Your task to perform on an android device: What's the weather going to be tomorrow? Image 0: 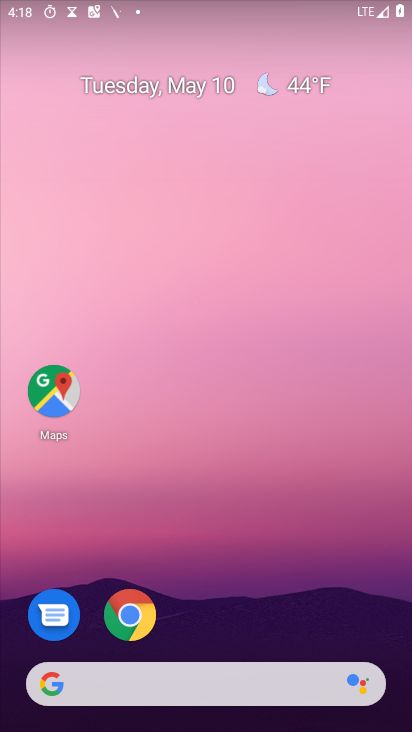
Step 0: drag from (231, 643) to (255, 83)
Your task to perform on an android device: What's the weather going to be tomorrow? Image 1: 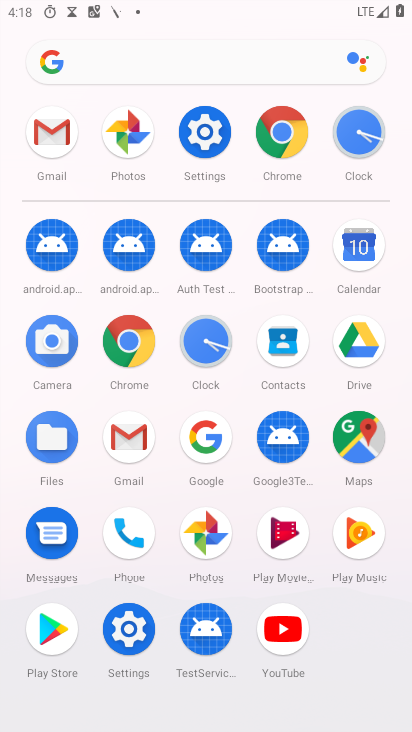
Step 1: click (286, 153)
Your task to perform on an android device: What's the weather going to be tomorrow? Image 2: 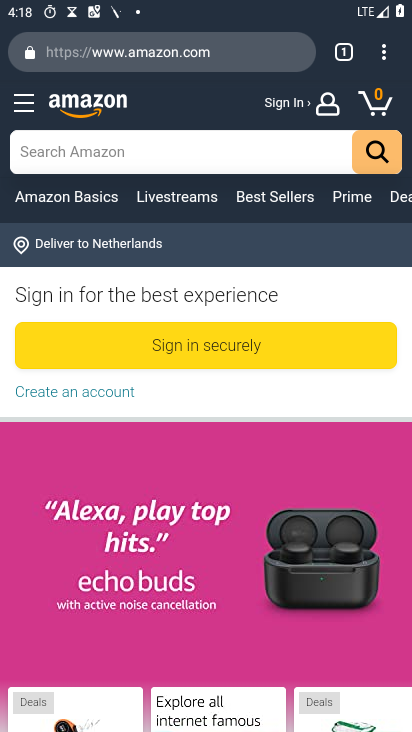
Step 2: click (211, 58)
Your task to perform on an android device: What's the weather going to be tomorrow? Image 3: 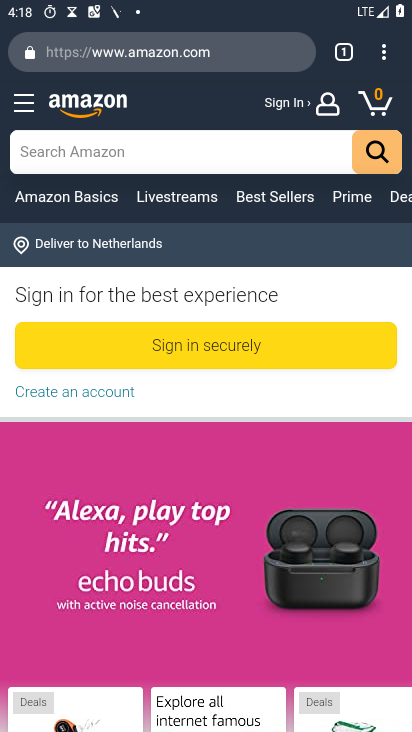
Step 3: click (201, 58)
Your task to perform on an android device: What's the weather going to be tomorrow? Image 4: 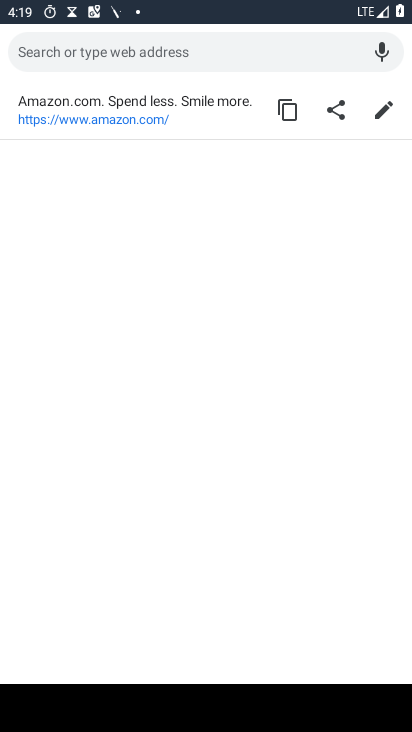
Step 4: type "weather going to be tomorrow"
Your task to perform on an android device: What's the weather going to be tomorrow? Image 5: 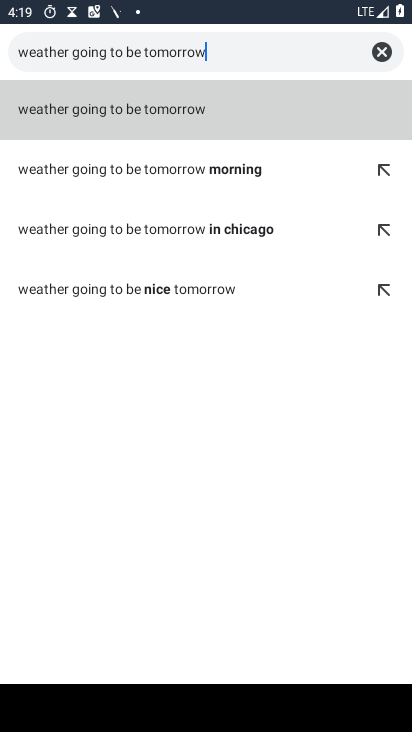
Step 5: click (275, 104)
Your task to perform on an android device: What's the weather going to be tomorrow? Image 6: 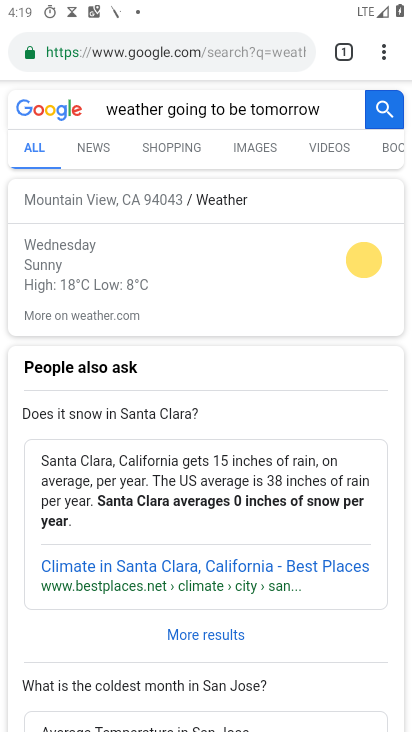
Step 6: task complete